Your task to perform on an android device: Do I have any events this weekend? Image 0: 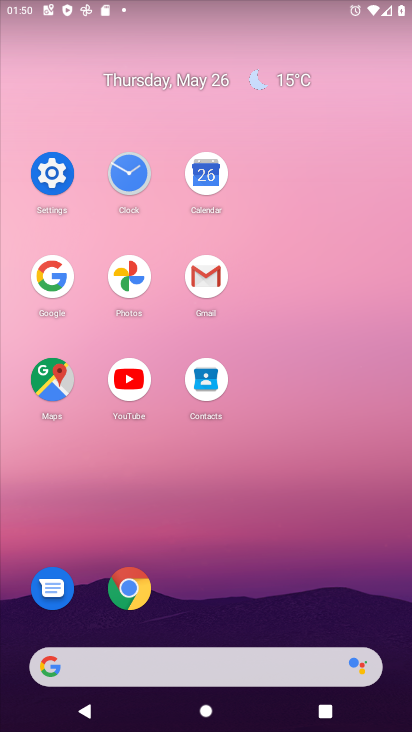
Step 0: click (204, 176)
Your task to perform on an android device: Do I have any events this weekend? Image 1: 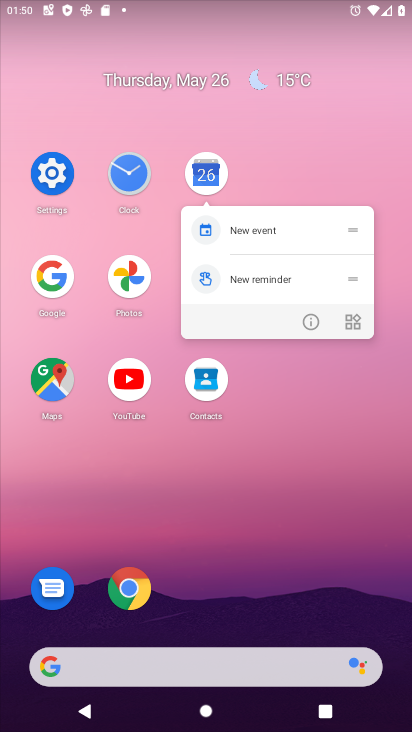
Step 1: click (204, 176)
Your task to perform on an android device: Do I have any events this weekend? Image 2: 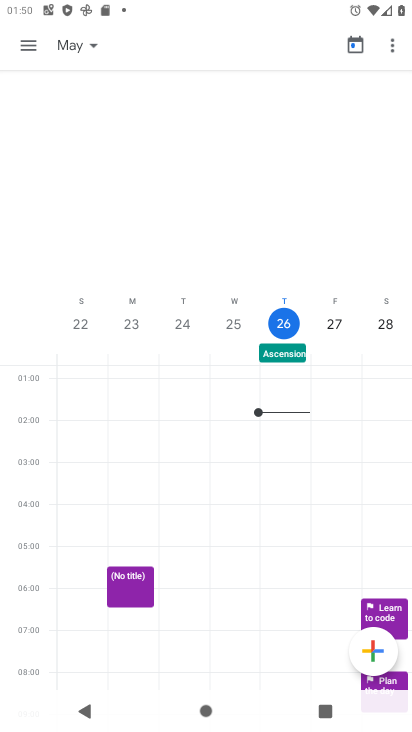
Step 2: click (19, 53)
Your task to perform on an android device: Do I have any events this weekend? Image 3: 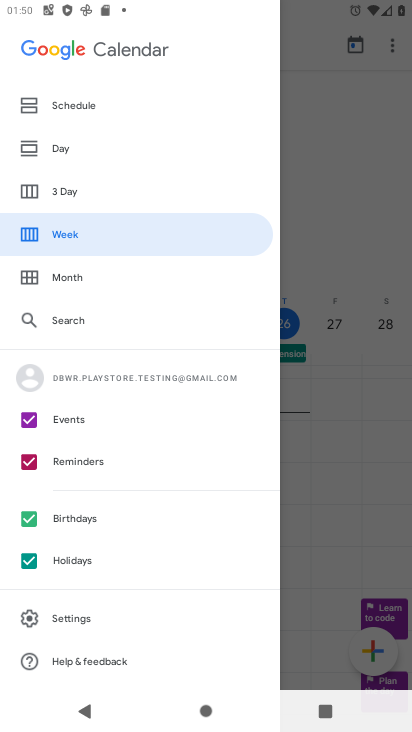
Step 3: click (86, 230)
Your task to perform on an android device: Do I have any events this weekend? Image 4: 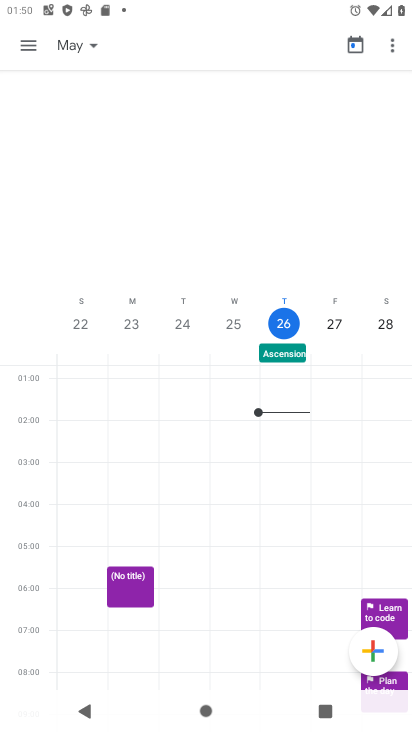
Step 4: click (382, 326)
Your task to perform on an android device: Do I have any events this weekend? Image 5: 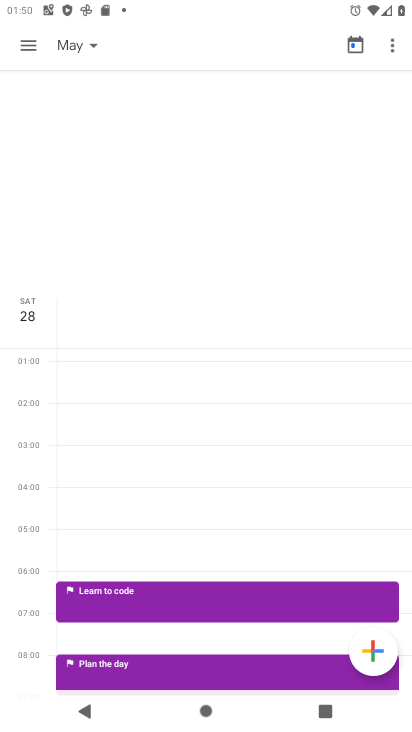
Step 5: task complete